Your task to perform on an android device: Search for Italian restaurants on Maps Image 0: 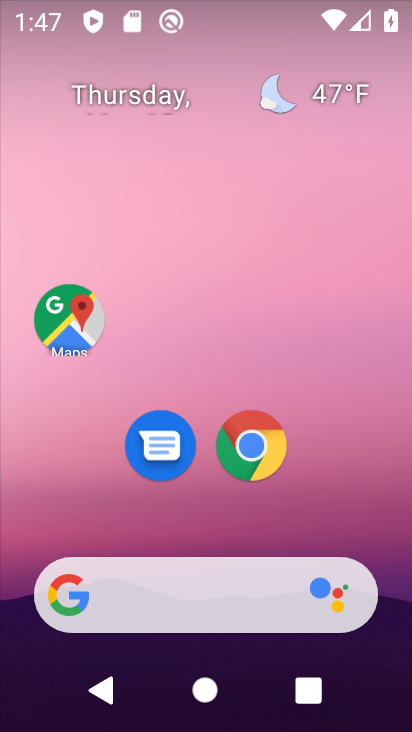
Step 0: click (66, 326)
Your task to perform on an android device: Search for Italian restaurants on Maps Image 1: 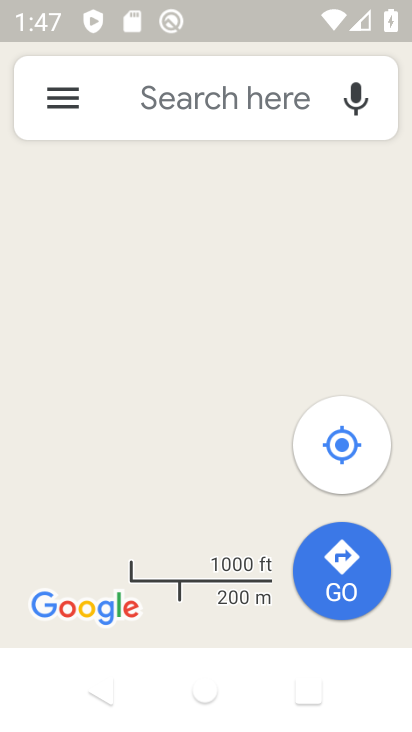
Step 1: click (222, 111)
Your task to perform on an android device: Search for Italian restaurants on Maps Image 2: 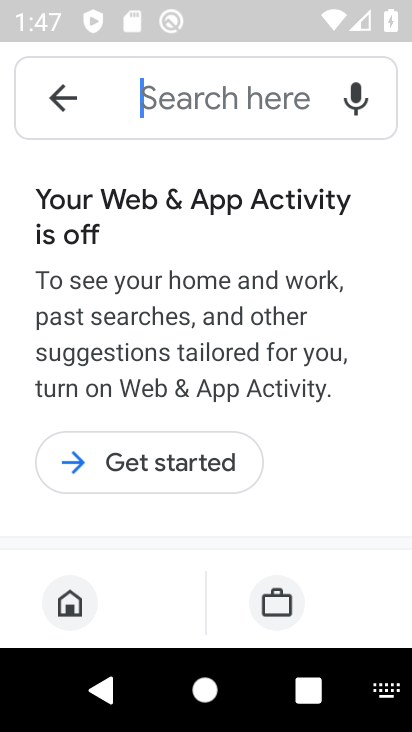
Step 2: type "Italian restaurants"
Your task to perform on an android device: Search for Italian restaurants on Maps Image 3: 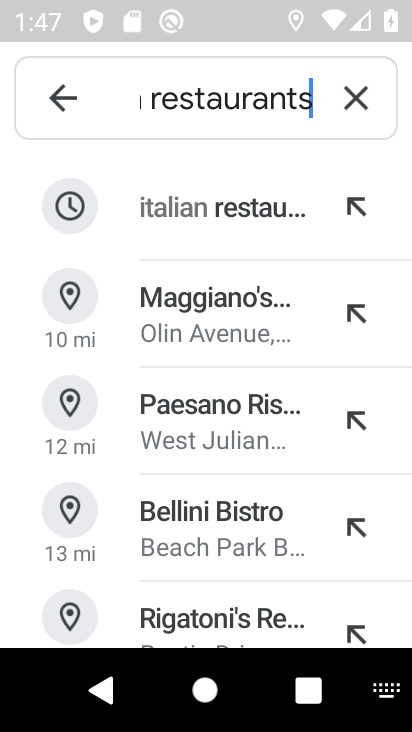
Step 3: click (220, 202)
Your task to perform on an android device: Search for Italian restaurants on Maps Image 4: 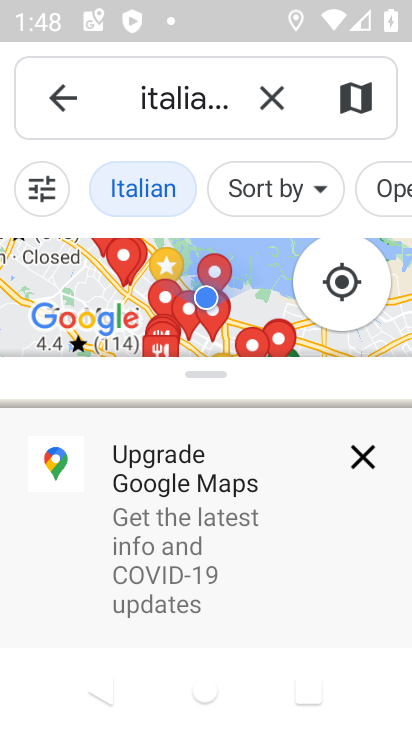
Step 4: task complete